Your task to perform on an android device: Open settings on Google Maps Image 0: 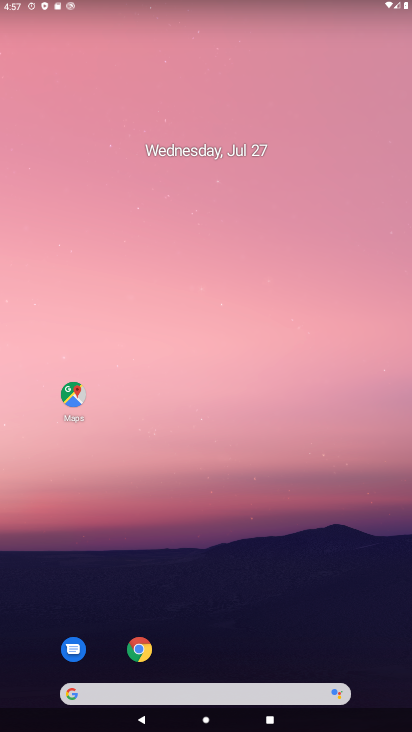
Step 0: click (72, 392)
Your task to perform on an android device: Open settings on Google Maps Image 1: 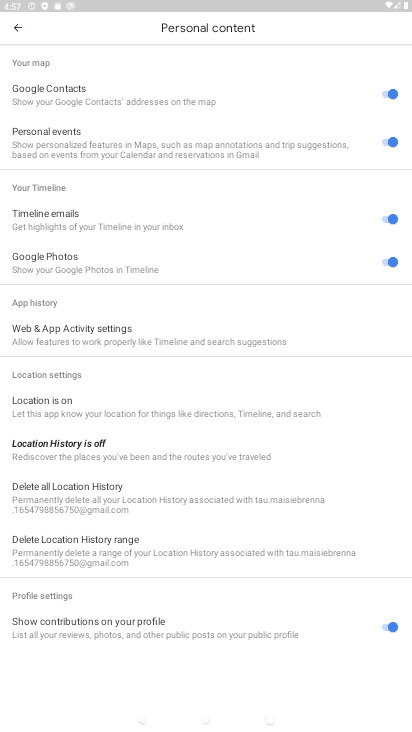
Step 1: press back button
Your task to perform on an android device: Open settings on Google Maps Image 2: 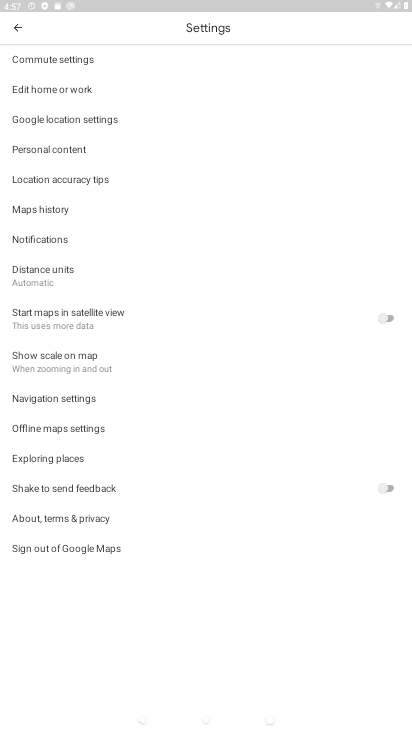
Step 2: press back button
Your task to perform on an android device: Open settings on Google Maps Image 3: 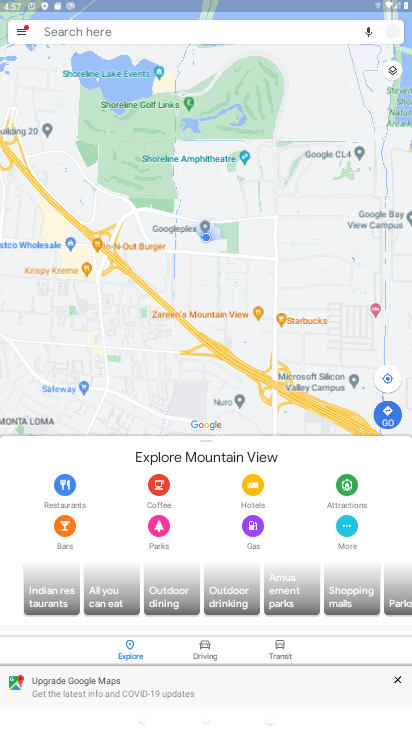
Step 3: click (22, 31)
Your task to perform on an android device: Open settings on Google Maps Image 4: 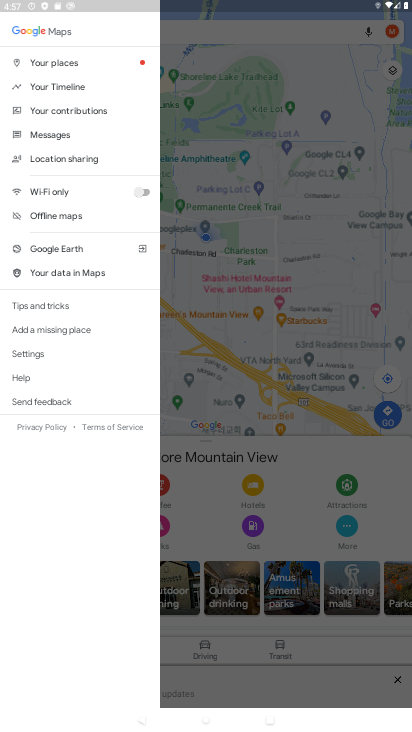
Step 4: click (38, 352)
Your task to perform on an android device: Open settings on Google Maps Image 5: 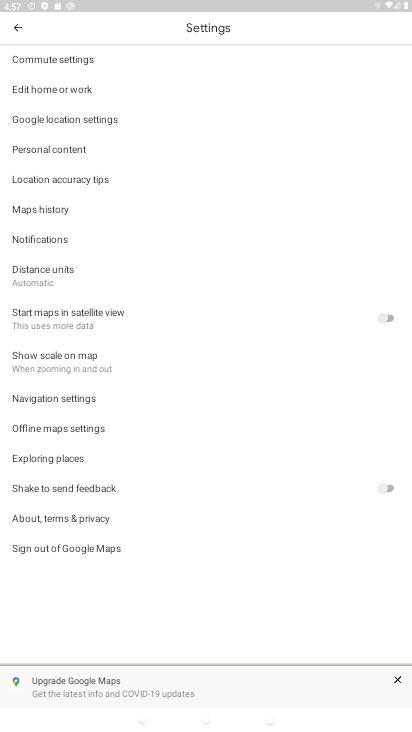
Step 5: task complete